Your task to perform on an android device: move an email to a new category in the gmail app Image 0: 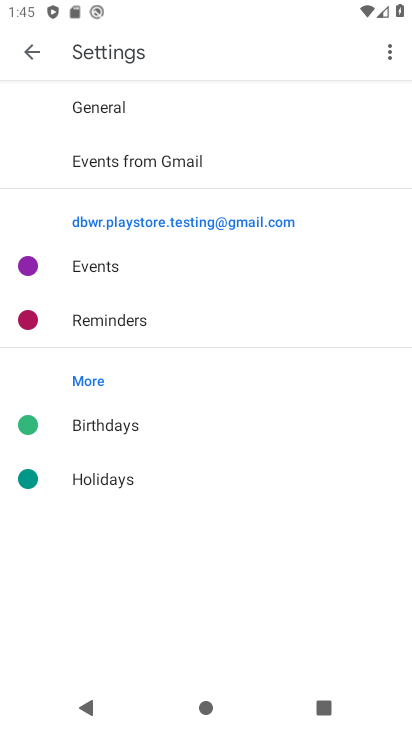
Step 0: press home button
Your task to perform on an android device: move an email to a new category in the gmail app Image 1: 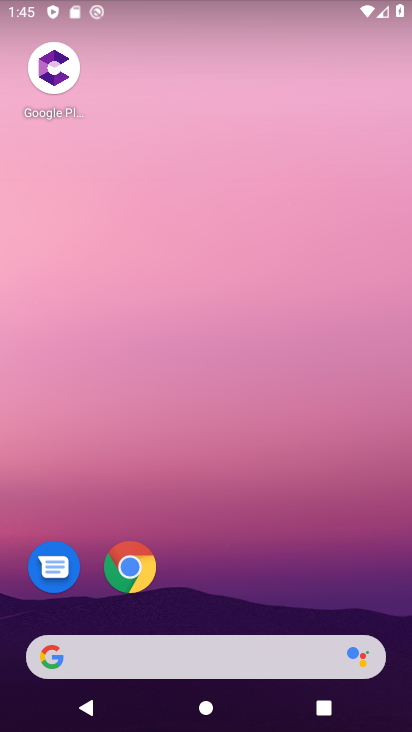
Step 1: drag from (206, 666) to (134, 60)
Your task to perform on an android device: move an email to a new category in the gmail app Image 2: 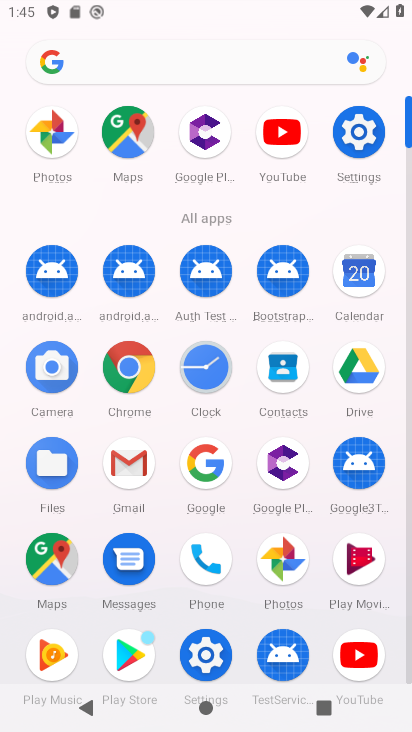
Step 2: click (133, 484)
Your task to perform on an android device: move an email to a new category in the gmail app Image 3: 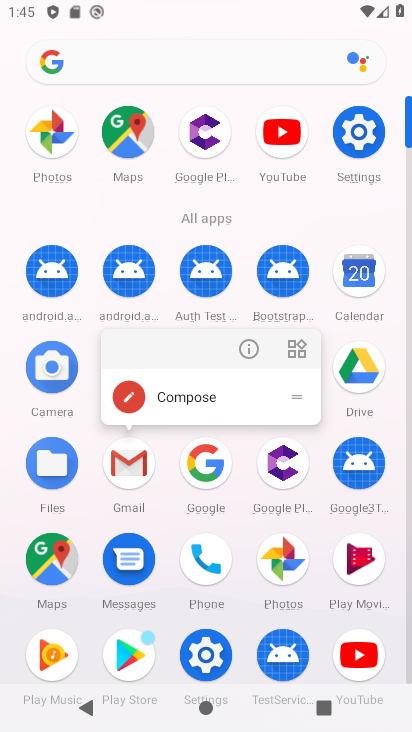
Step 3: click (133, 484)
Your task to perform on an android device: move an email to a new category in the gmail app Image 4: 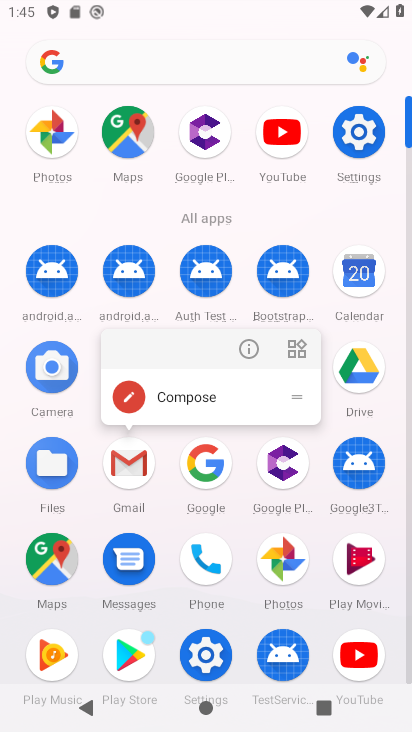
Step 4: click (133, 484)
Your task to perform on an android device: move an email to a new category in the gmail app Image 5: 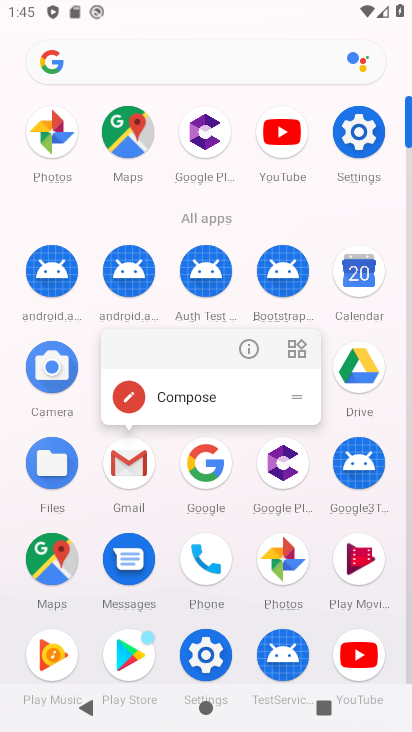
Step 5: click (133, 484)
Your task to perform on an android device: move an email to a new category in the gmail app Image 6: 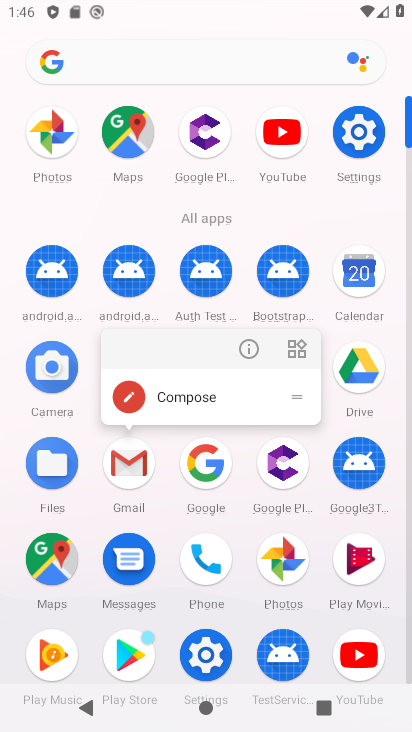
Step 6: click (60, 379)
Your task to perform on an android device: move an email to a new category in the gmail app Image 7: 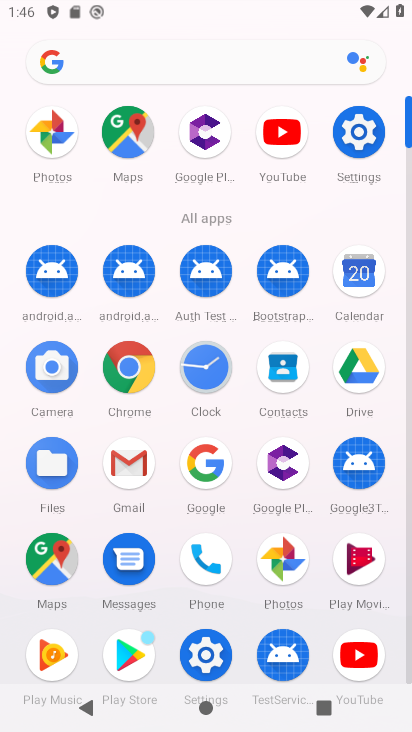
Step 7: click (79, 379)
Your task to perform on an android device: move an email to a new category in the gmail app Image 8: 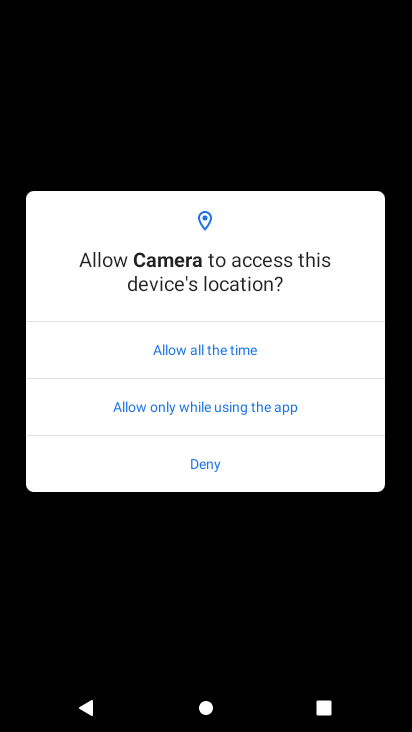
Step 8: task complete